Your task to perform on an android device: Open the calendar app, open the side menu, and click the "Day" option Image 0: 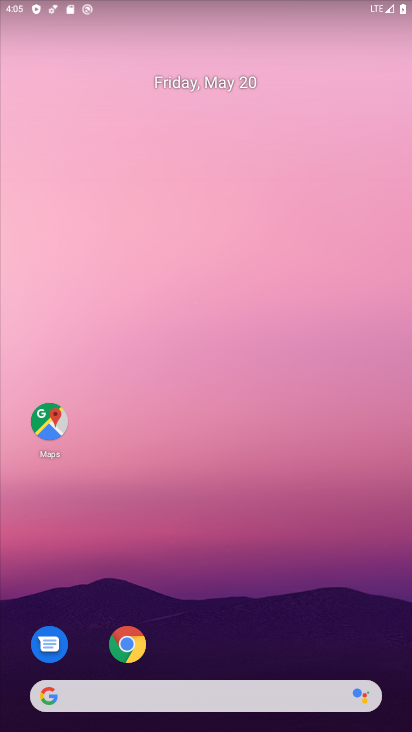
Step 0: drag from (254, 723) to (210, 151)
Your task to perform on an android device: Open the calendar app, open the side menu, and click the "Day" option Image 1: 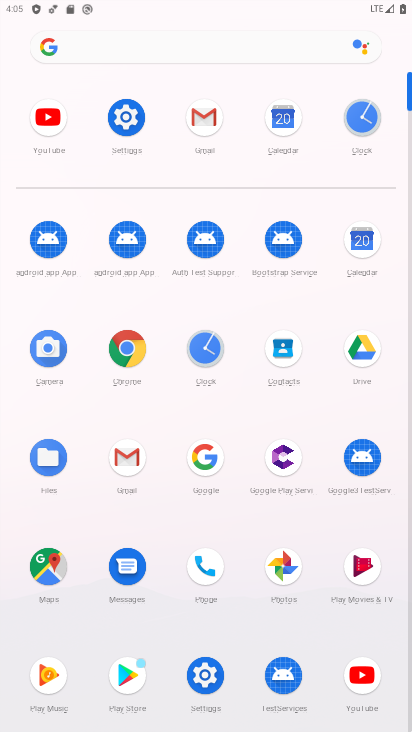
Step 1: click (362, 257)
Your task to perform on an android device: Open the calendar app, open the side menu, and click the "Day" option Image 2: 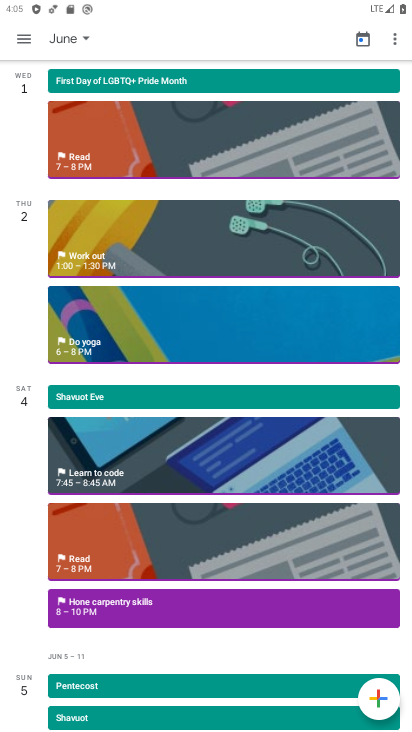
Step 2: click (19, 44)
Your task to perform on an android device: Open the calendar app, open the side menu, and click the "Day" option Image 3: 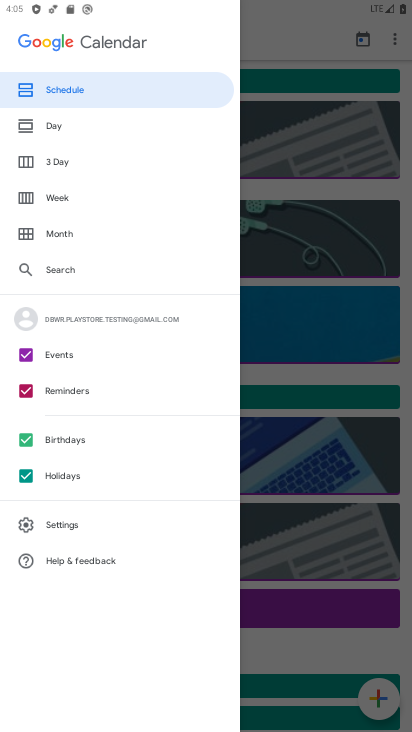
Step 3: click (76, 228)
Your task to perform on an android device: Open the calendar app, open the side menu, and click the "Day" option Image 4: 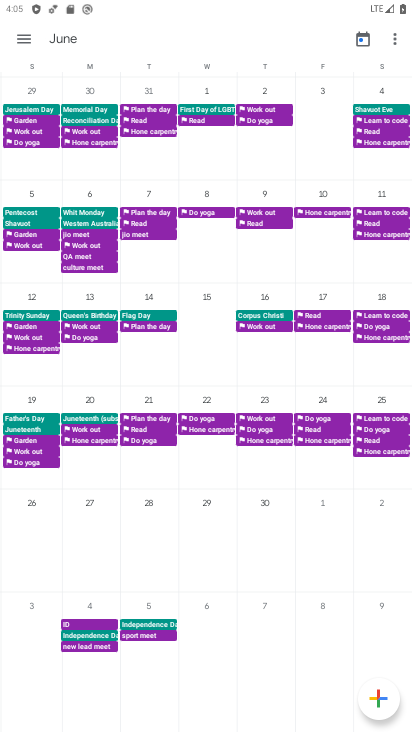
Step 4: drag from (34, 389) to (392, 374)
Your task to perform on an android device: Open the calendar app, open the side menu, and click the "Day" option Image 5: 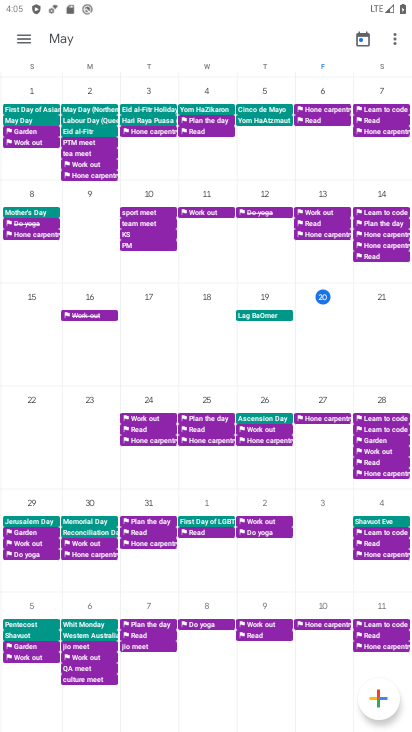
Step 5: click (14, 34)
Your task to perform on an android device: Open the calendar app, open the side menu, and click the "Day" option Image 6: 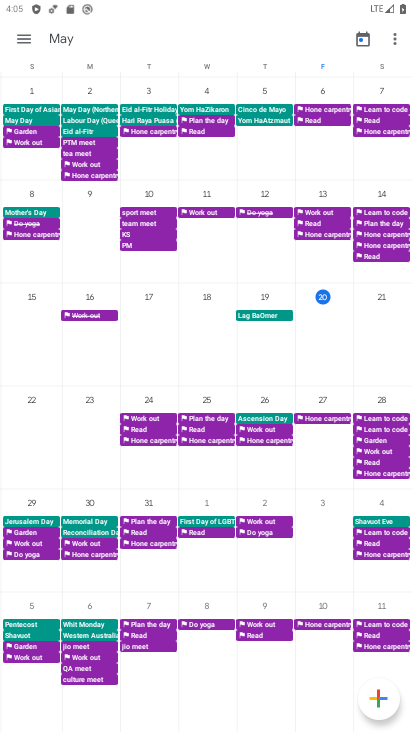
Step 6: click (22, 37)
Your task to perform on an android device: Open the calendar app, open the side menu, and click the "Day" option Image 7: 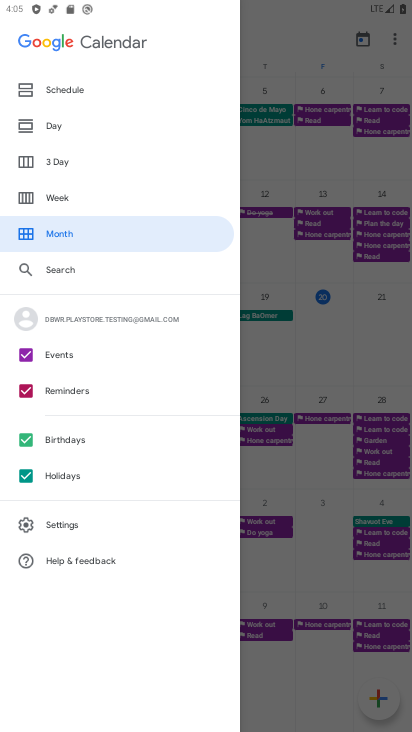
Step 7: click (53, 127)
Your task to perform on an android device: Open the calendar app, open the side menu, and click the "Day" option Image 8: 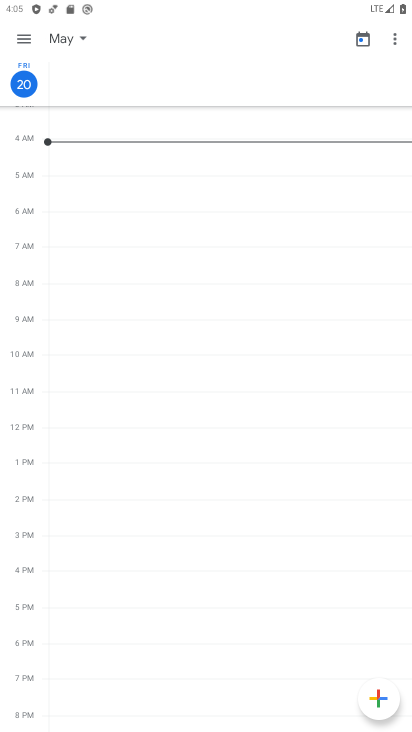
Step 8: task complete